Your task to perform on an android device: add a contact Image 0: 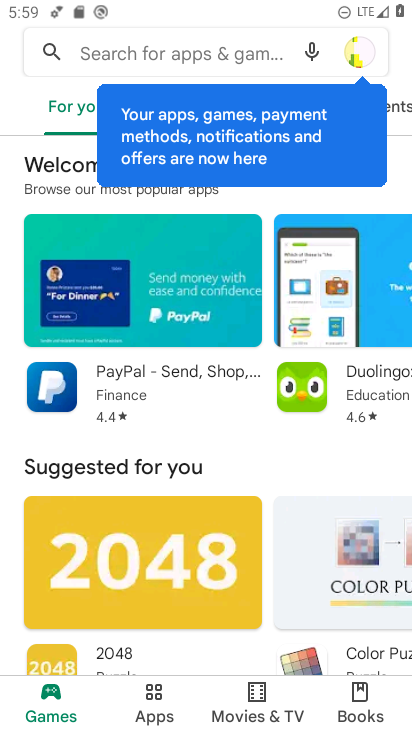
Step 0: press home button
Your task to perform on an android device: add a contact Image 1: 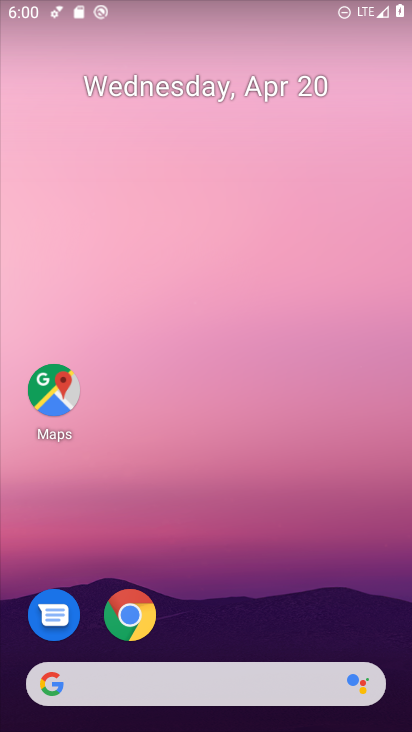
Step 1: drag from (360, 298) to (336, 28)
Your task to perform on an android device: add a contact Image 2: 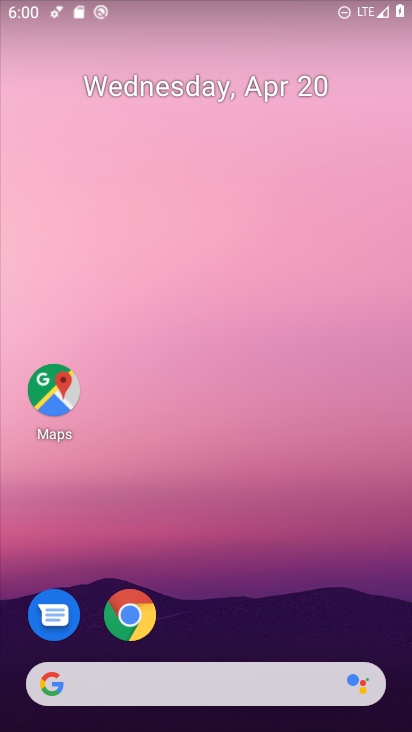
Step 2: drag from (247, 612) to (257, 29)
Your task to perform on an android device: add a contact Image 3: 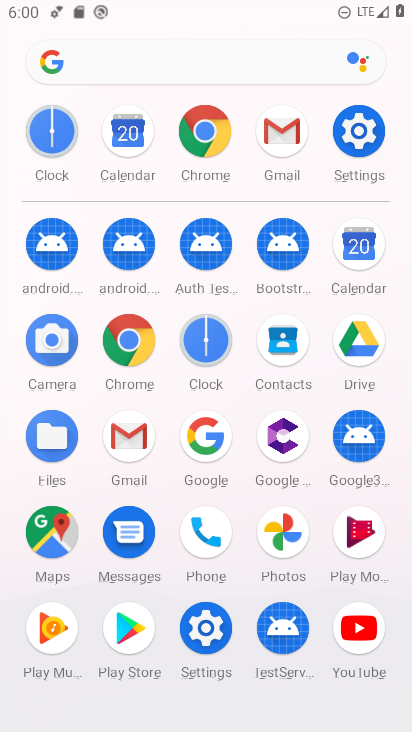
Step 3: click (279, 341)
Your task to perform on an android device: add a contact Image 4: 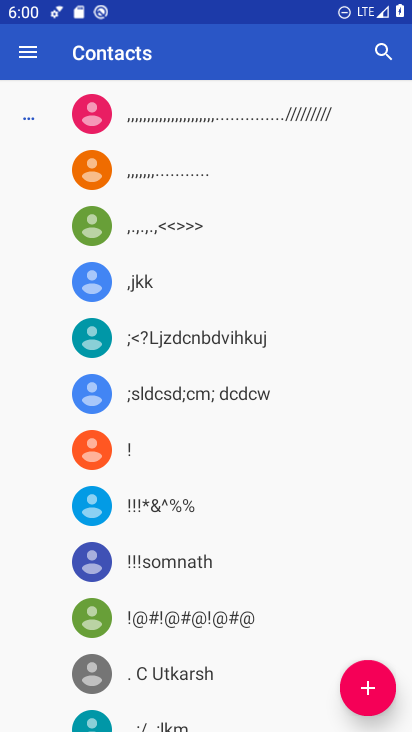
Step 4: click (369, 687)
Your task to perform on an android device: add a contact Image 5: 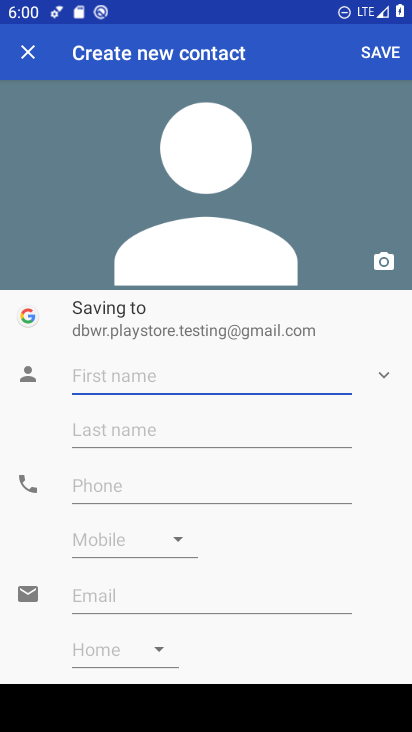
Step 5: type "jhgfdfgh"
Your task to perform on an android device: add a contact Image 6: 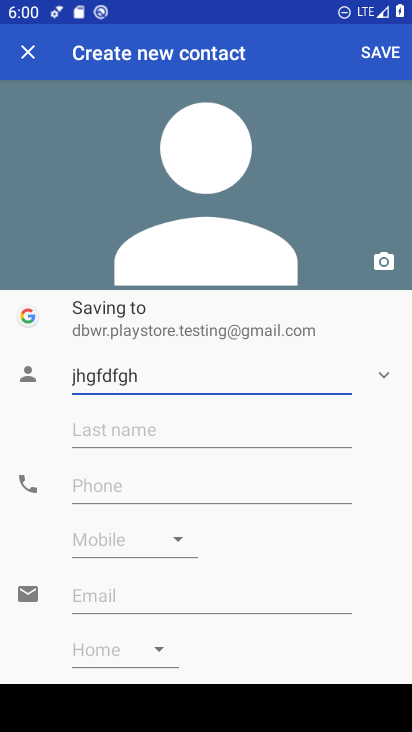
Step 6: click (134, 494)
Your task to perform on an android device: add a contact Image 7: 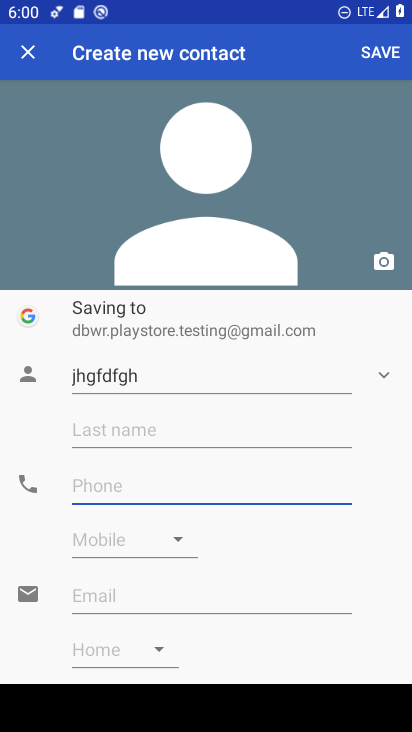
Step 7: type "2348764567"
Your task to perform on an android device: add a contact Image 8: 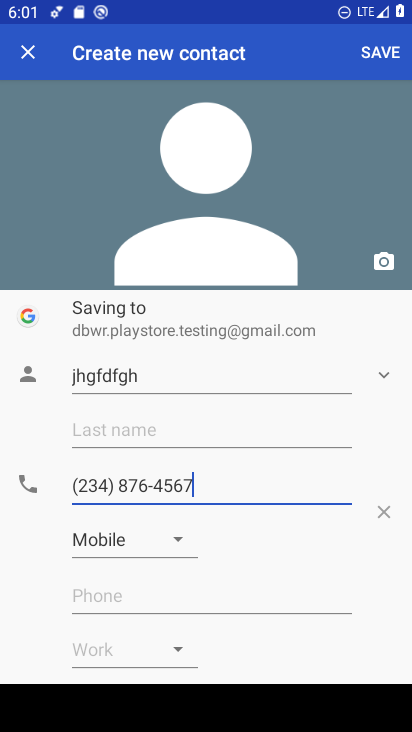
Step 8: click (385, 50)
Your task to perform on an android device: add a contact Image 9: 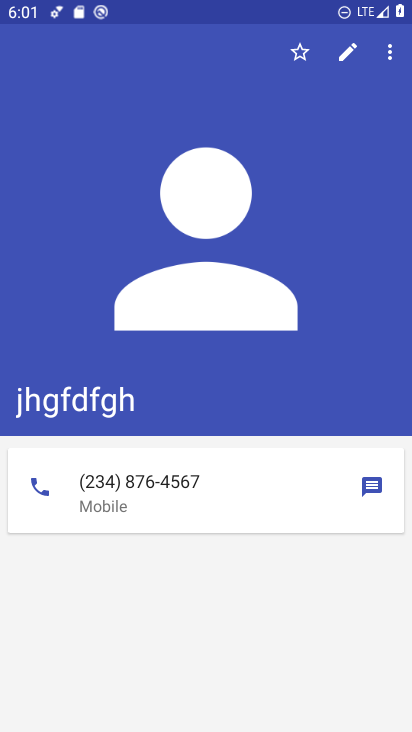
Step 9: task complete